Your task to perform on an android device: Show me recent news Image 0: 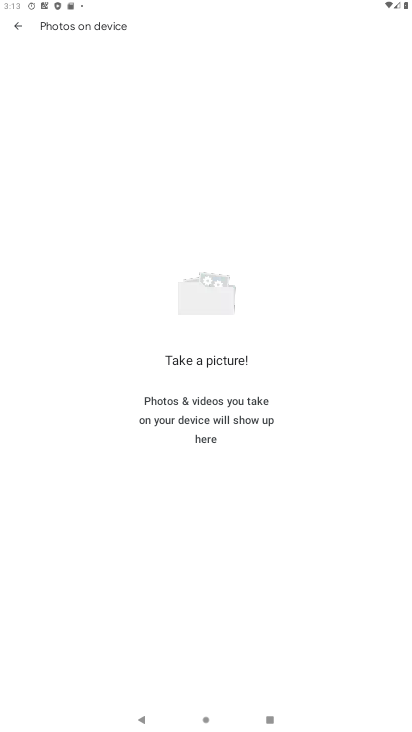
Step 0: press home button
Your task to perform on an android device: Show me recent news Image 1: 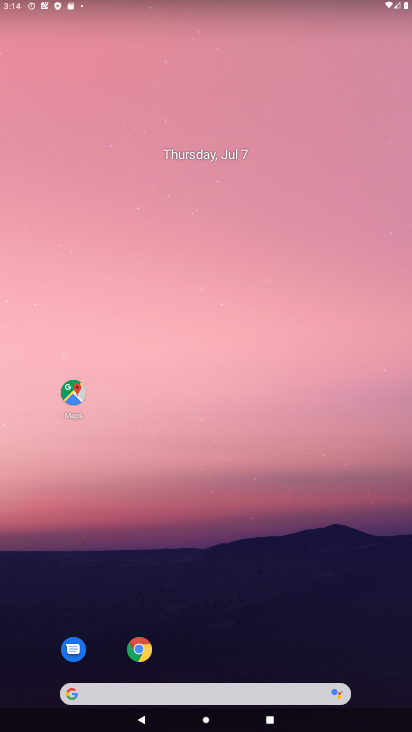
Step 1: drag from (291, 686) to (276, 20)
Your task to perform on an android device: Show me recent news Image 2: 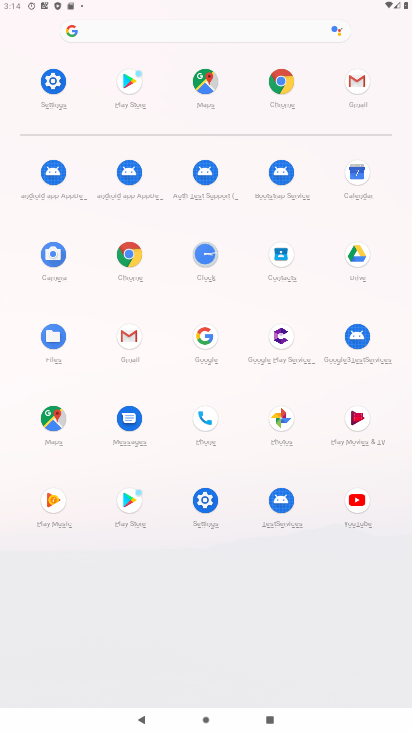
Step 2: click (122, 257)
Your task to perform on an android device: Show me recent news Image 3: 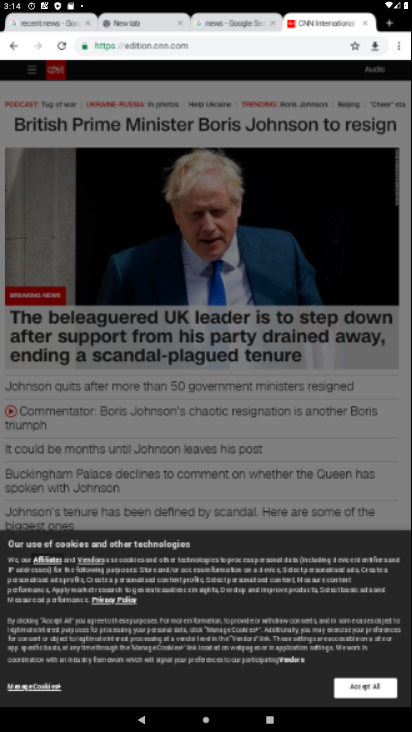
Step 3: click (199, 46)
Your task to perform on an android device: Show me recent news Image 4: 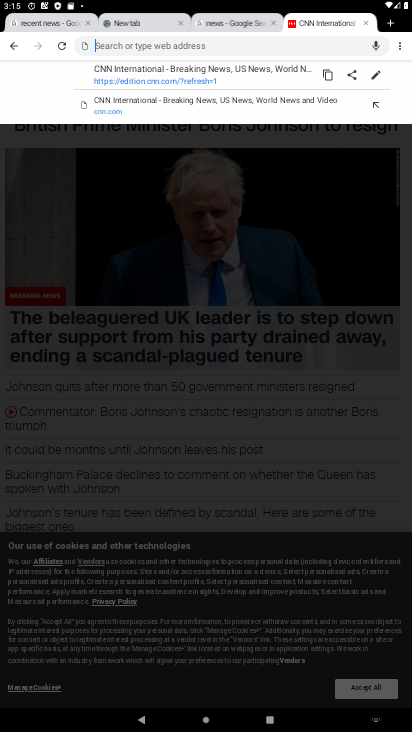
Step 4: type "recent news"
Your task to perform on an android device: Show me recent news Image 5: 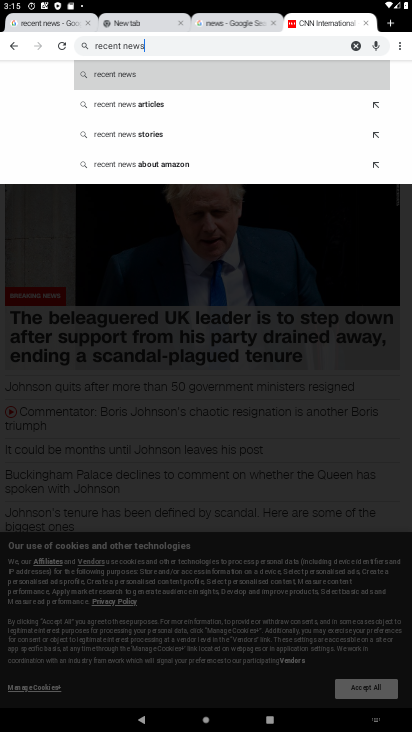
Step 5: click (168, 77)
Your task to perform on an android device: Show me recent news Image 6: 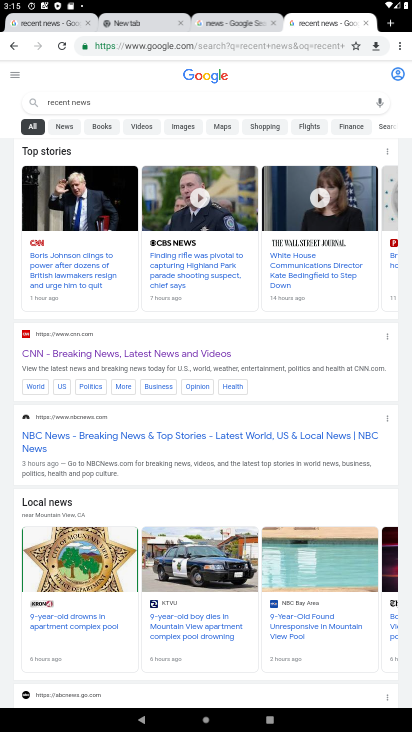
Step 6: task complete